Your task to perform on an android device: Go to privacy settings Image 0: 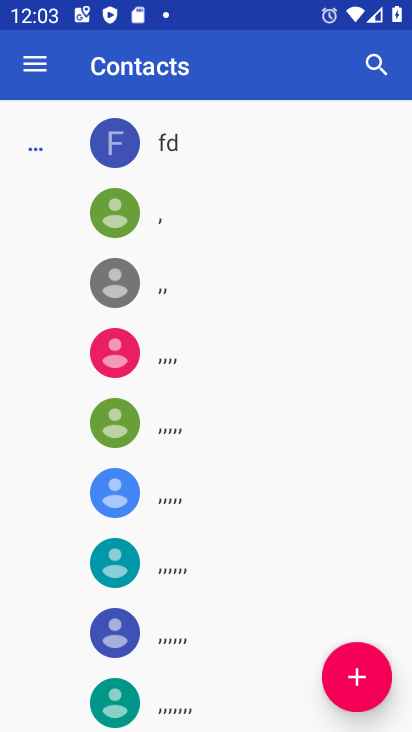
Step 0: press home button
Your task to perform on an android device: Go to privacy settings Image 1: 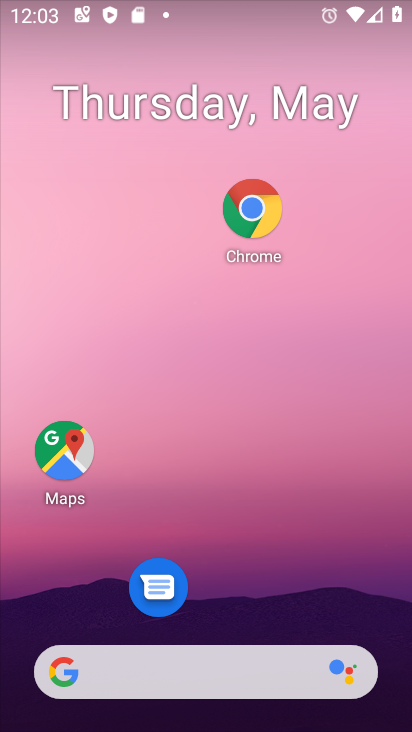
Step 1: drag from (219, 579) to (267, 8)
Your task to perform on an android device: Go to privacy settings Image 2: 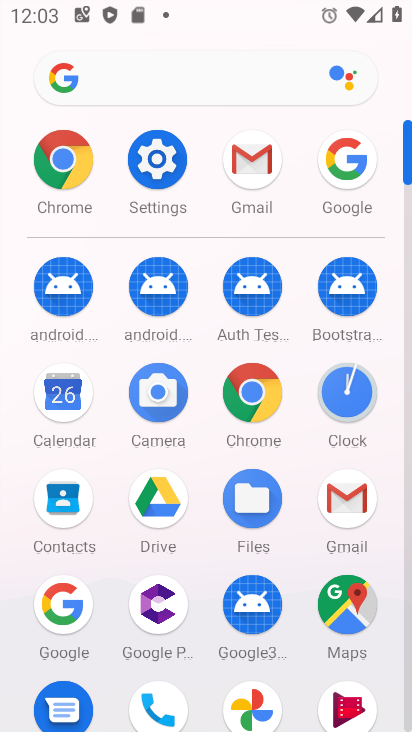
Step 2: click (136, 162)
Your task to perform on an android device: Go to privacy settings Image 3: 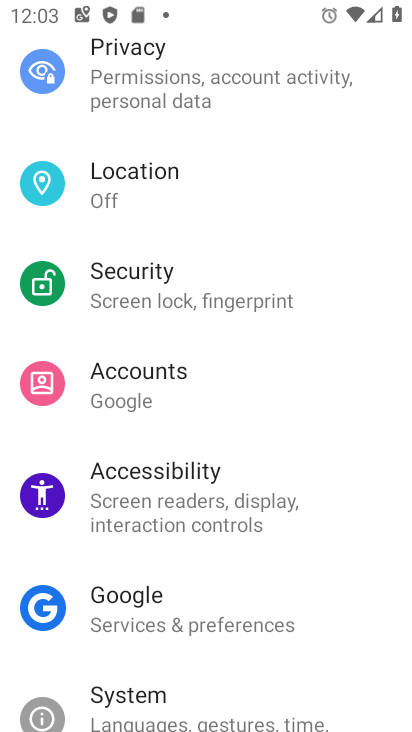
Step 3: click (191, 93)
Your task to perform on an android device: Go to privacy settings Image 4: 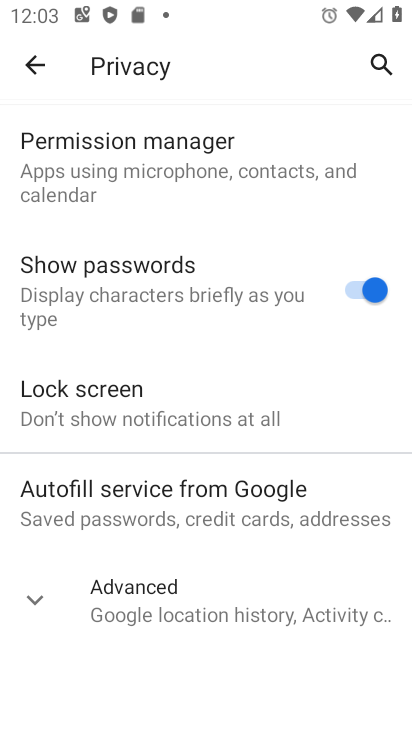
Step 4: task complete